Your task to perform on an android device: Open the calendar and show me this week's events? Image 0: 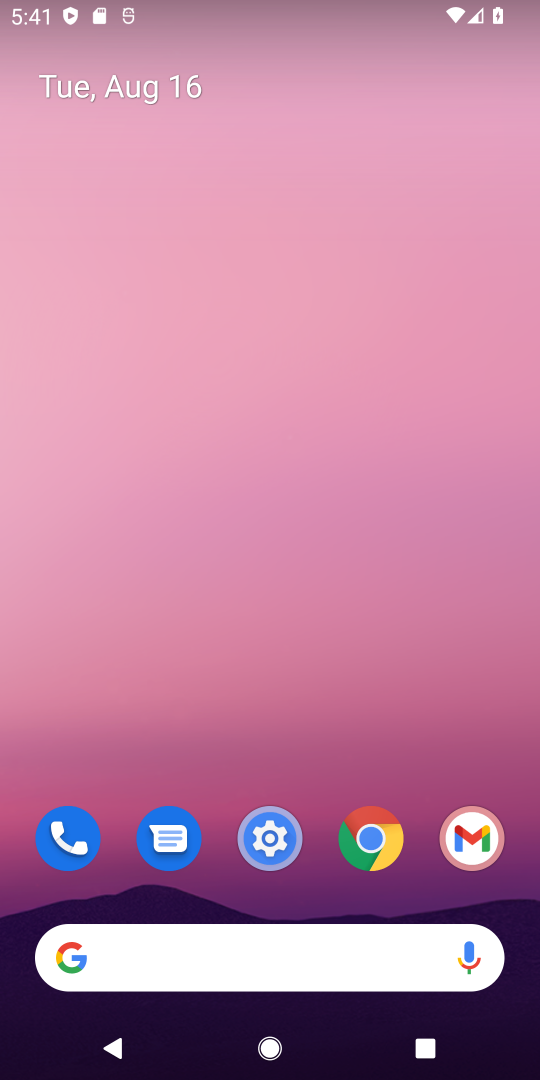
Step 0: drag from (264, 865) to (322, 44)
Your task to perform on an android device: Open the calendar and show me this week's events? Image 1: 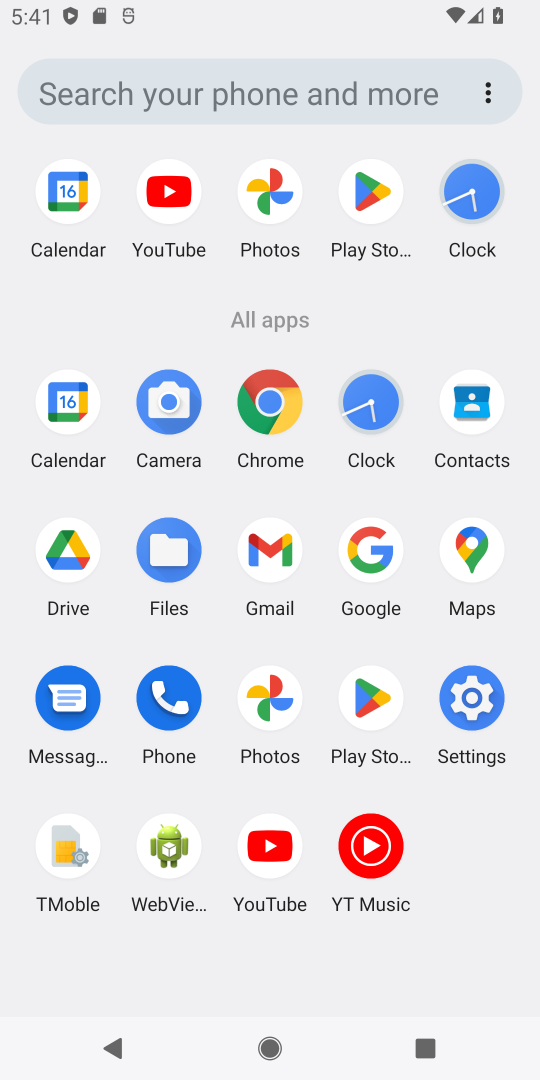
Step 1: click (46, 411)
Your task to perform on an android device: Open the calendar and show me this week's events? Image 2: 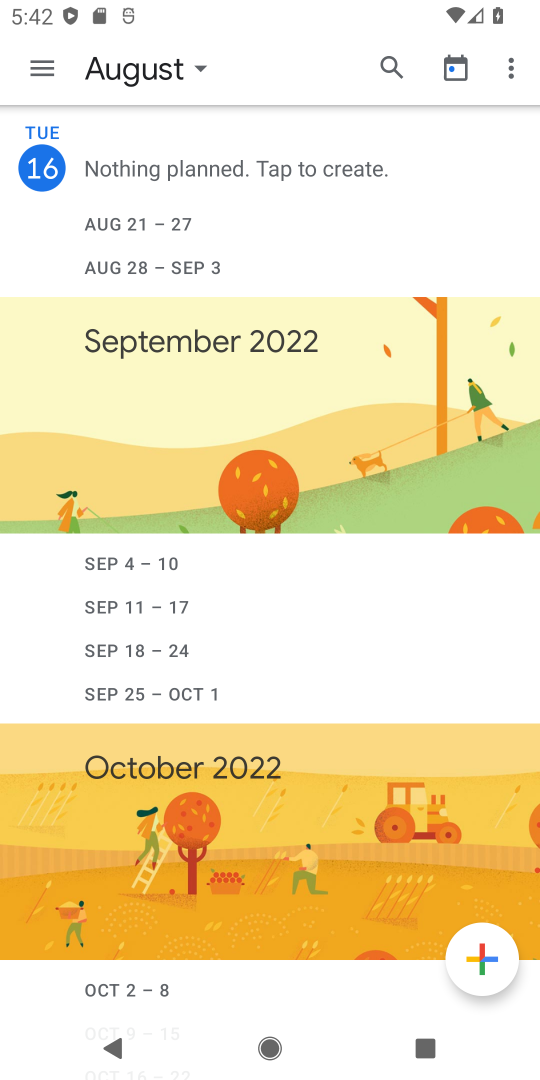
Step 2: click (164, 66)
Your task to perform on an android device: Open the calendar and show me this week's events? Image 3: 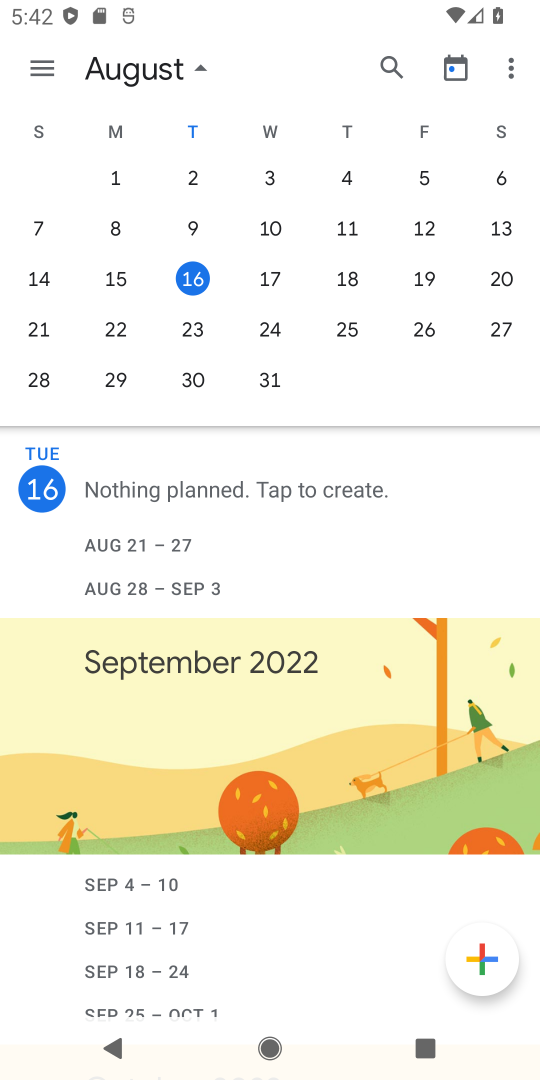
Step 3: click (186, 292)
Your task to perform on an android device: Open the calendar and show me this week's events? Image 4: 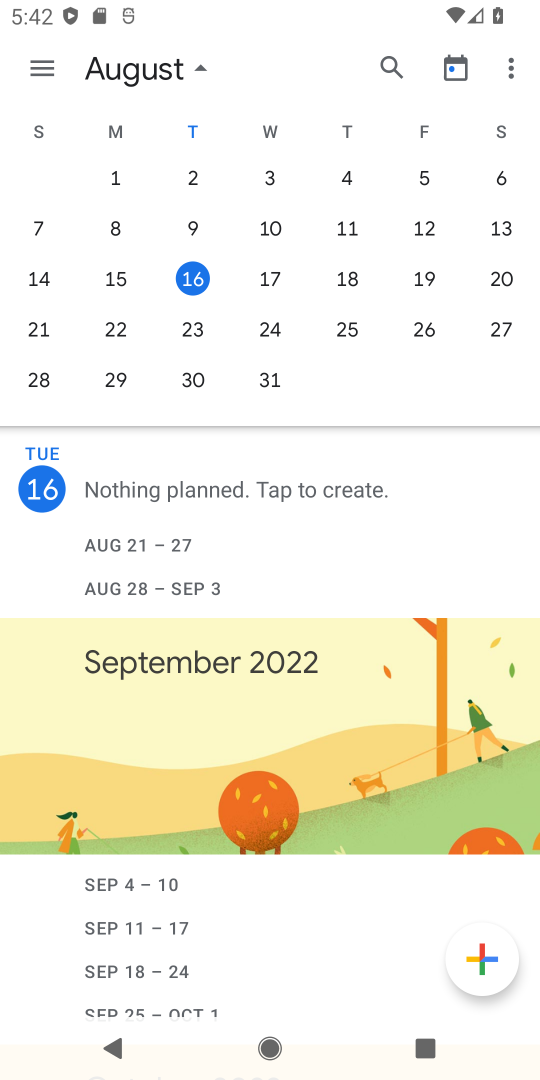
Step 4: task complete